Your task to perform on an android device: Open display settings Image 0: 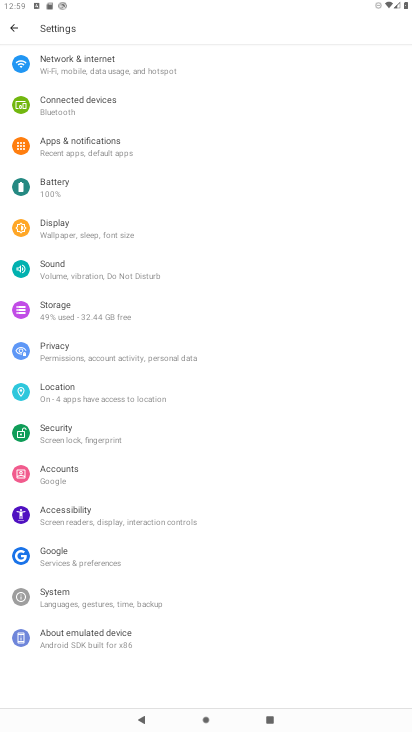
Step 0: click (94, 222)
Your task to perform on an android device: Open display settings Image 1: 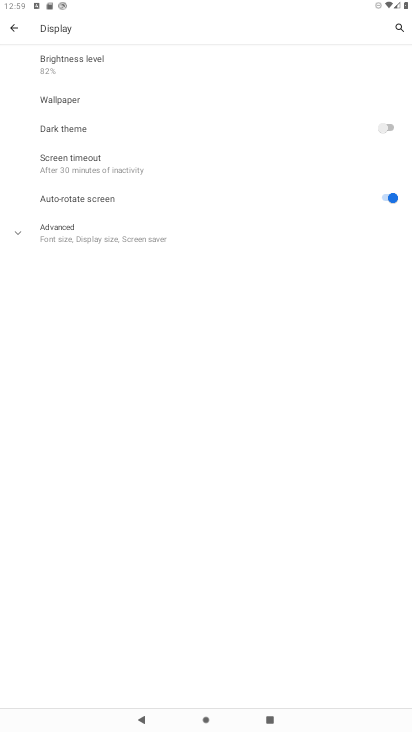
Step 1: click (20, 229)
Your task to perform on an android device: Open display settings Image 2: 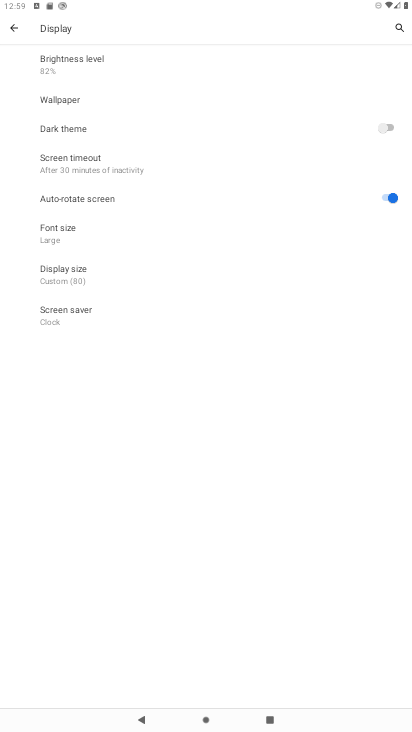
Step 2: task complete